Your task to perform on an android device: Open eBay Image 0: 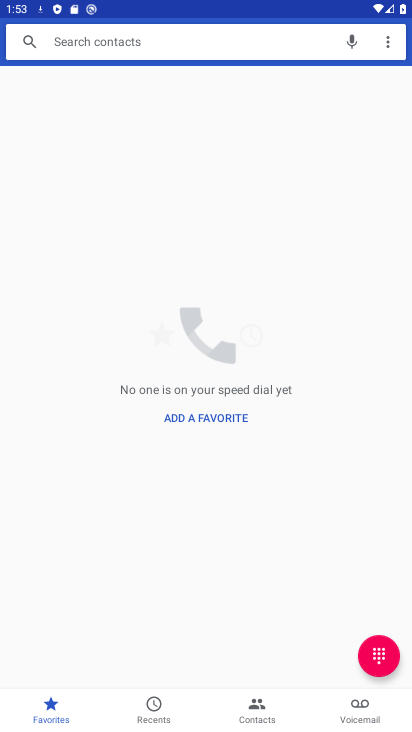
Step 0: press home button
Your task to perform on an android device: Open eBay Image 1: 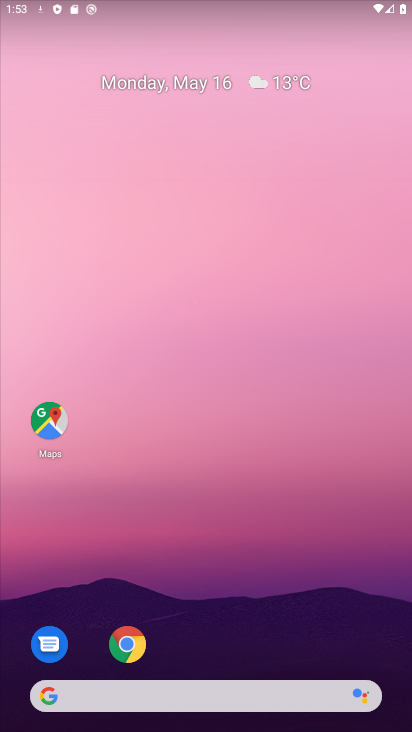
Step 1: click (133, 649)
Your task to perform on an android device: Open eBay Image 2: 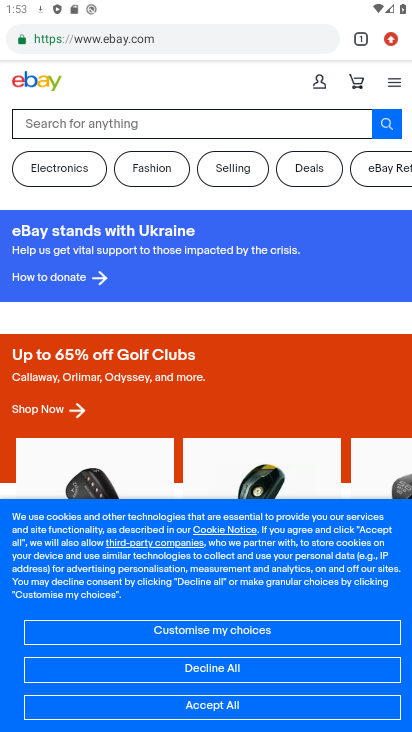
Step 2: task complete